Your task to perform on an android device: What's the weather today? Image 0: 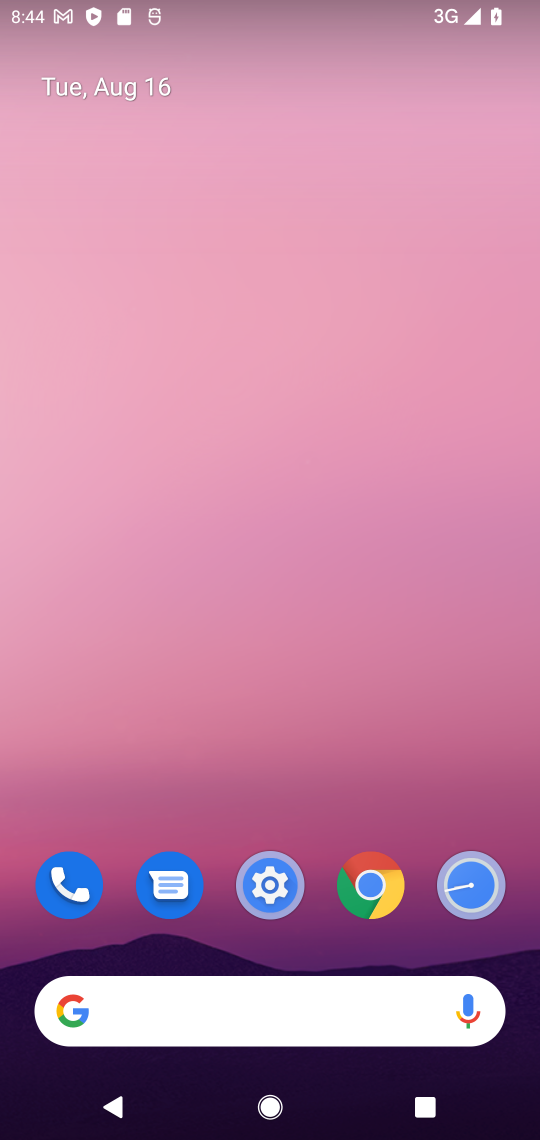
Step 0: click (222, 1010)
Your task to perform on an android device: What's the weather today? Image 1: 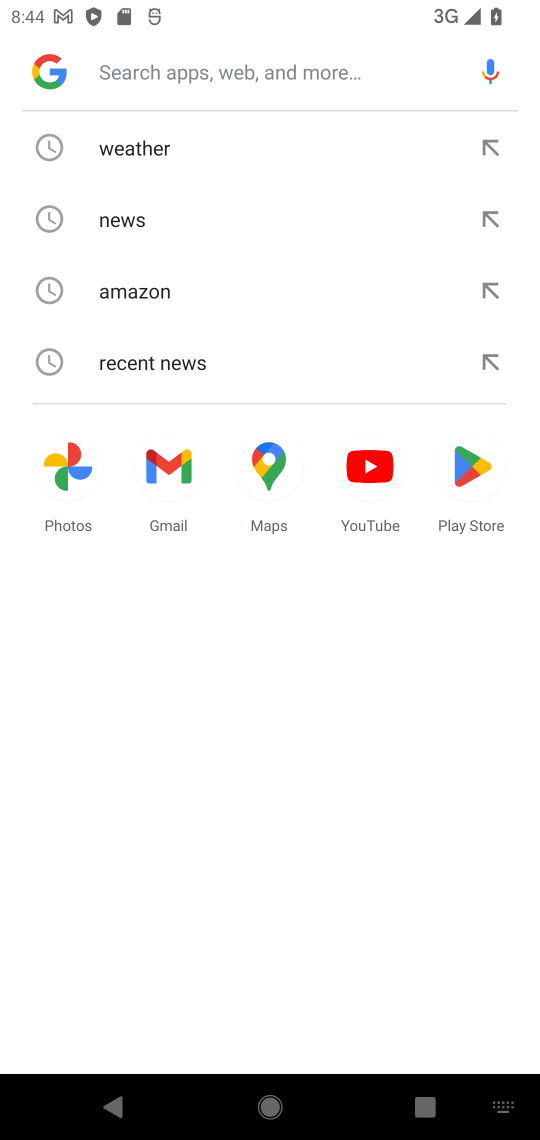
Step 1: click (113, 150)
Your task to perform on an android device: What's the weather today? Image 2: 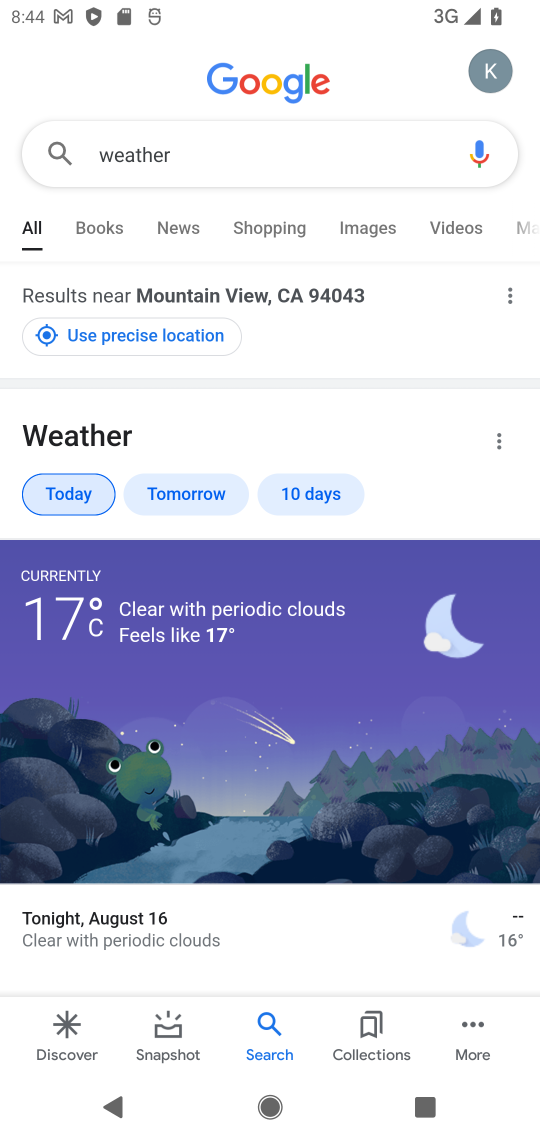
Step 2: task complete